Your task to perform on an android device: What's the latest video from GameSpot News? Image 0: 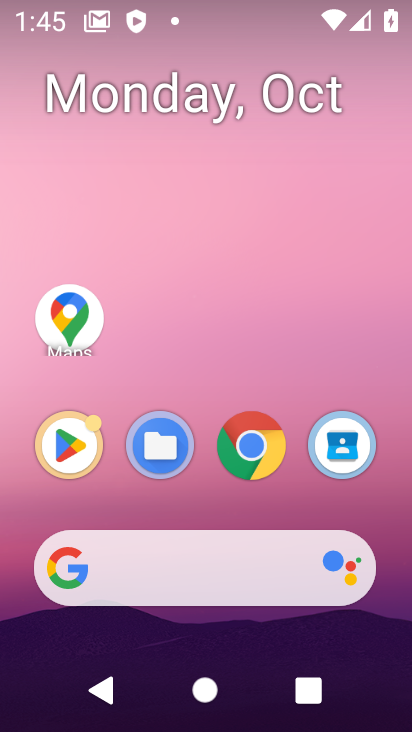
Step 0: drag from (196, 505) to (183, 179)
Your task to perform on an android device: What's the latest video from GameSpot News? Image 1: 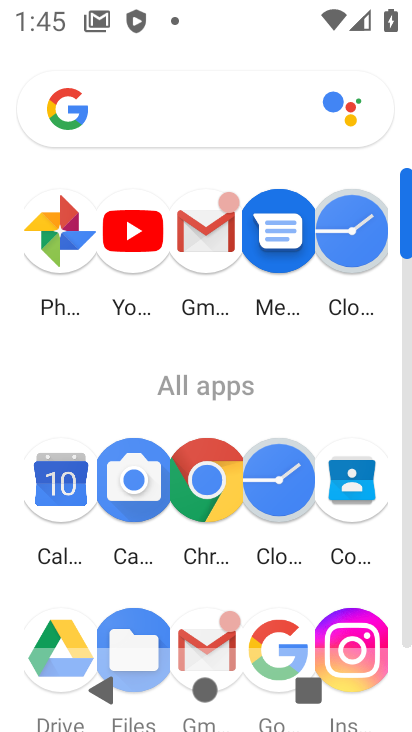
Step 1: click (145, 247)
Your task to perform on an android device: What's the latest video from GameSpot News? Image 2: 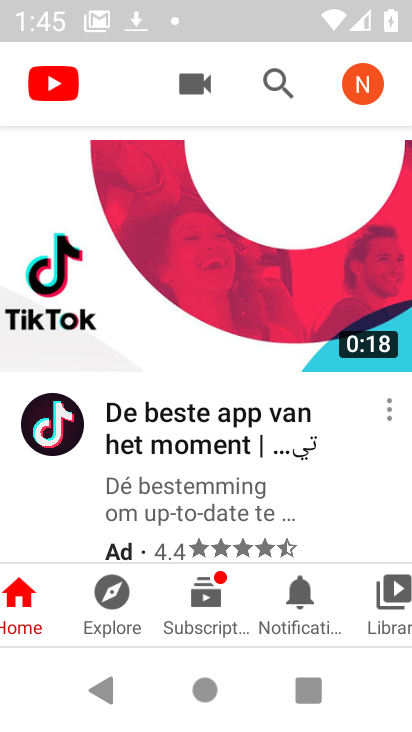
Step 2: click (276, 85)
Your task to perform on an android device: What's the latest video from GameSpot News? Image 3: 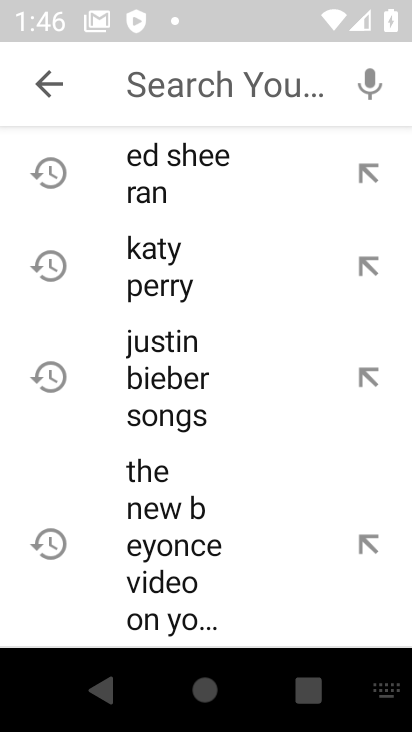
Step 3: type "GameSpot News"
Your task to perform on an android device: What's the latest video from GameSpot News? Image 4: 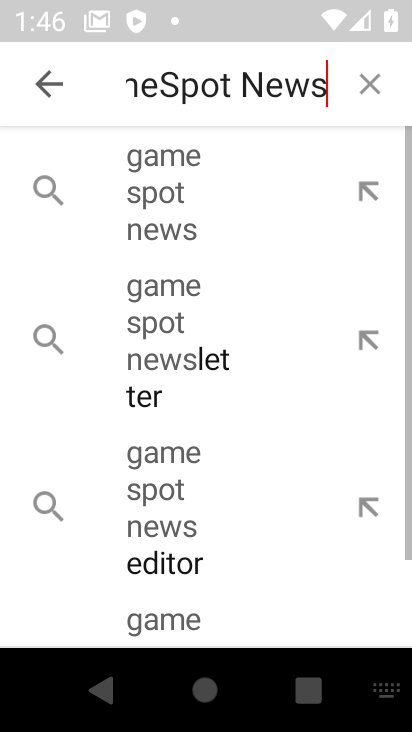
Step 4: type ""
Your task to perform on an android device: What's the latest video from GameSpot News? Image 5: 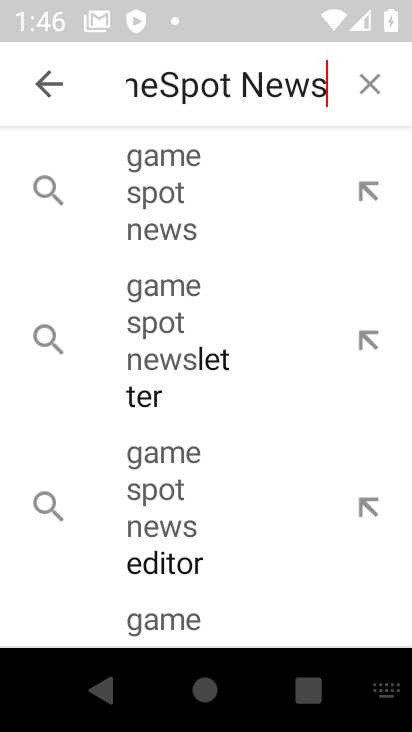
Step 5: click (204, 187)
Your task to perform on an android device: What's the latest video from GameSpot News? Image 6: 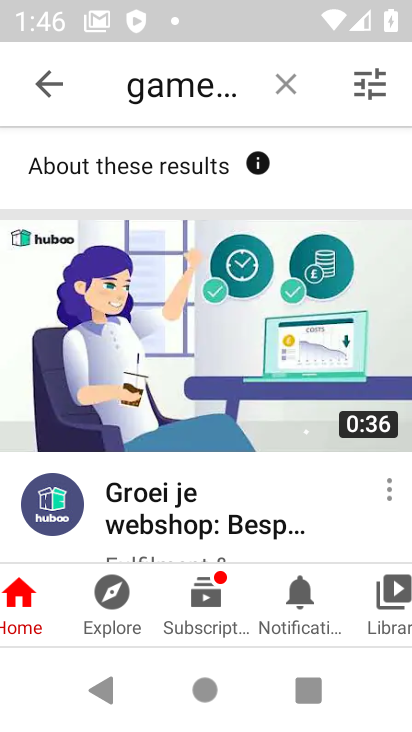
Step 6: drag from (217, 494) to (220, 250)
Your task to perform on an android device: What's the latest video from GameSpot News? Image 7: 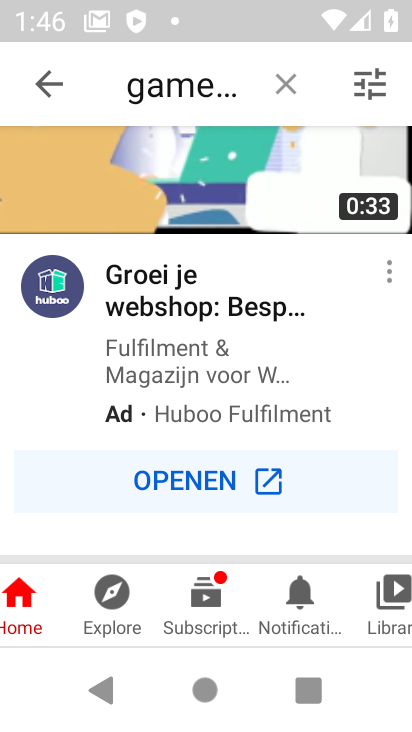
Step 7: drag from (191, 423) to (217, 213)
Your task to perform on an android device: What's the latest video from GameSpot News? Image 8: 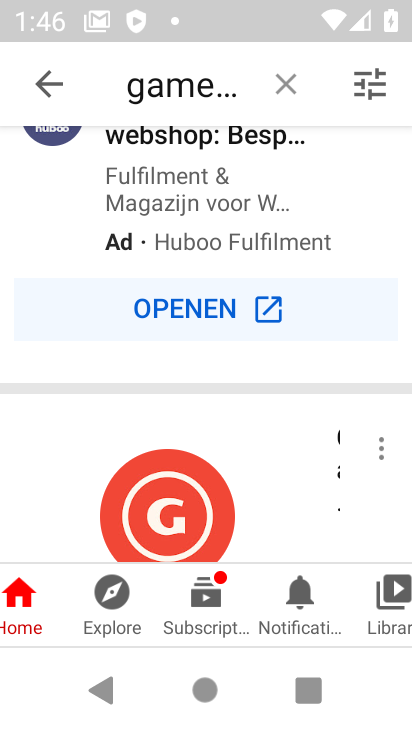
Step 8: drag from (238, 491) to (272, 187)
Your task to perform on an android device: What's the latest video from GameSpot News? Image 9: 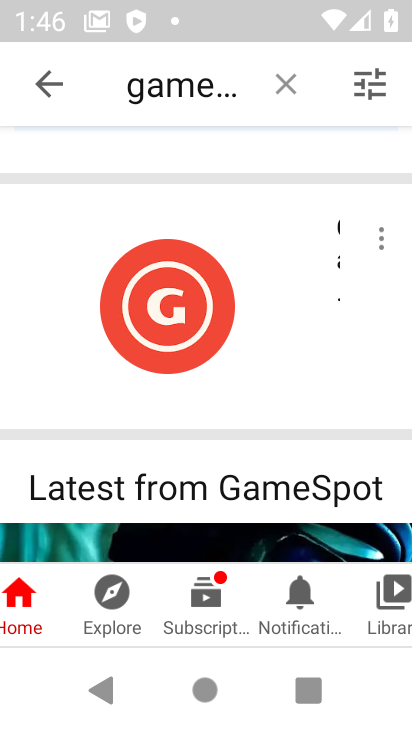
Step 9: drag from (266, 501) to (272, 257)
Your task to perform on an android device: What's the latest video from GameSpot News? Image 10: 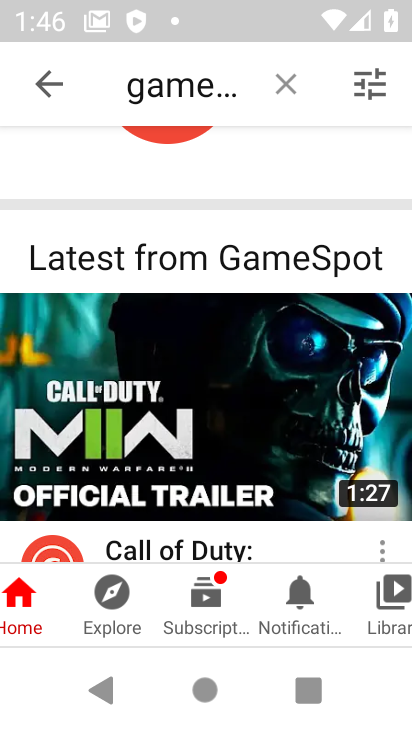
Step 10: drag from (257, 430) to (252, 174)
Your task to perform on an android device: What's the latest video from GameSpot News? Image 11: 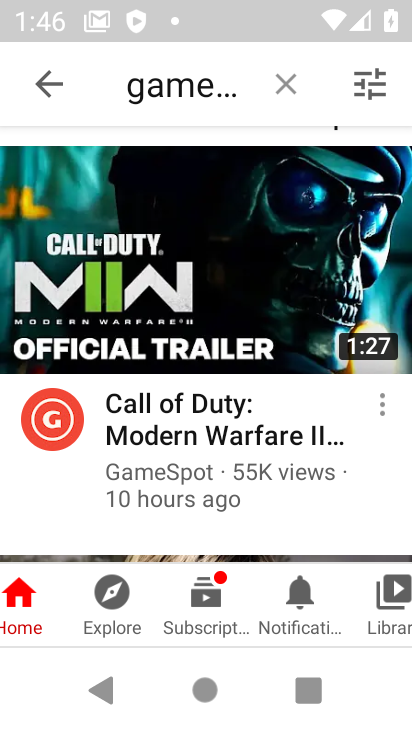
Step 11: click (228, 274)
Your task to perform on an android device: What's the latest video from GameSpot News? Image 12: 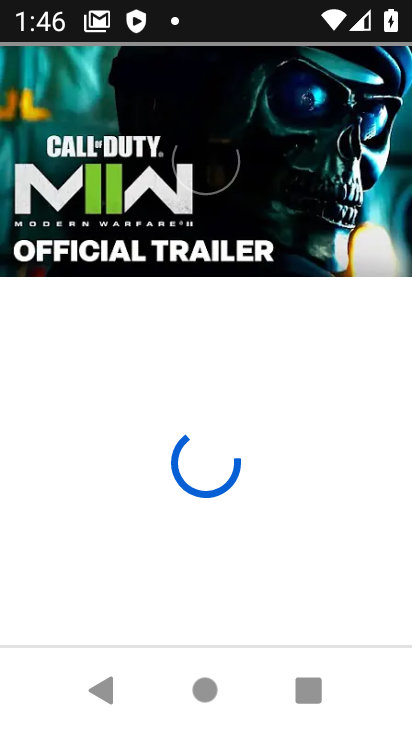
Step 12: click (228, 274)
Your task to perform on an android device: What's the latest video from GameSpot News? Image 13: 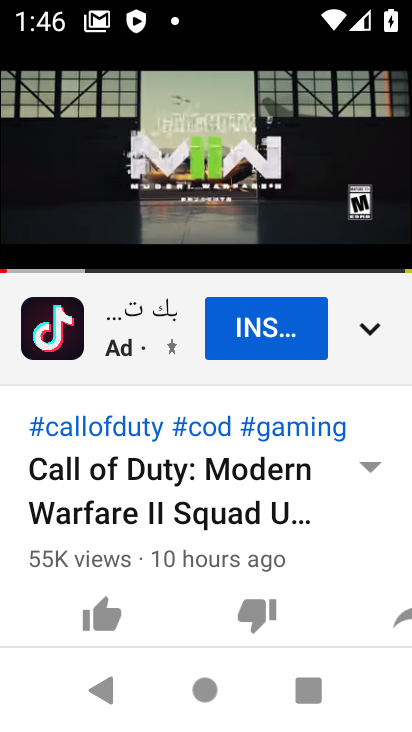
Step 13: click (177, 141)
Your task to perform on an android device: What's the latest video from GameSpot News? Image 14: 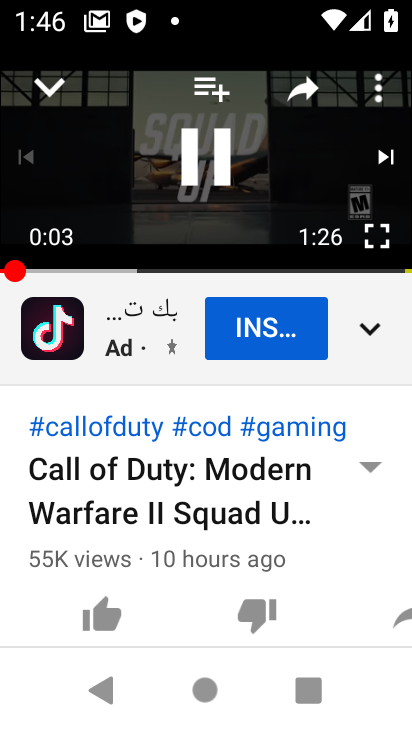
Step 14: click (189, 152)
Your task to perform on an android device: What's the latest video from GameSpot News? Image 15: 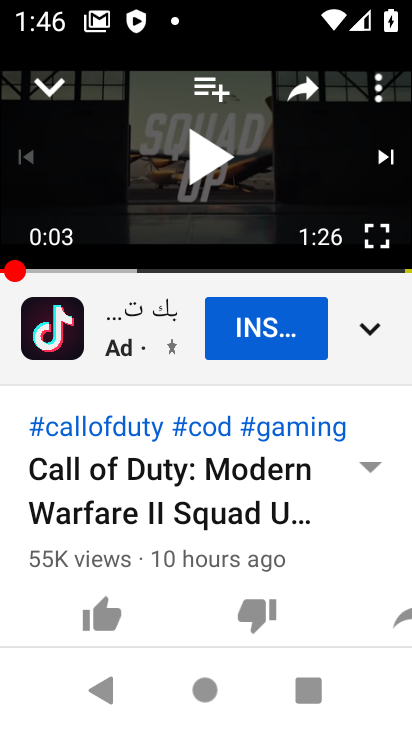
Step 15: task complete